Your task to perform on an android device: check out phone information Image 0: 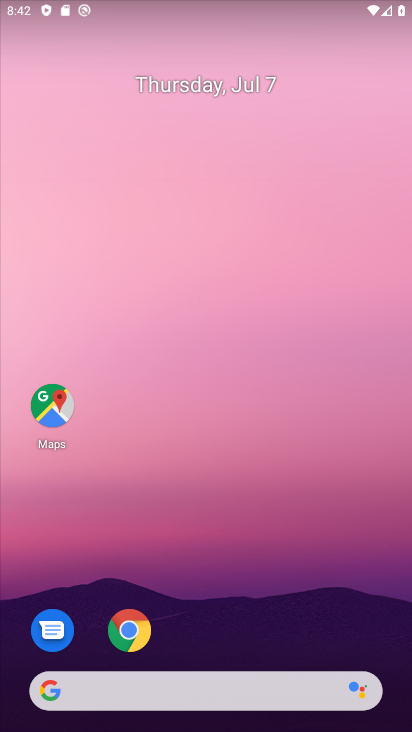
Step 0: drag from (189, 637) to (184, 142)
Your task to perform on an android device: check out phone information Image 1: 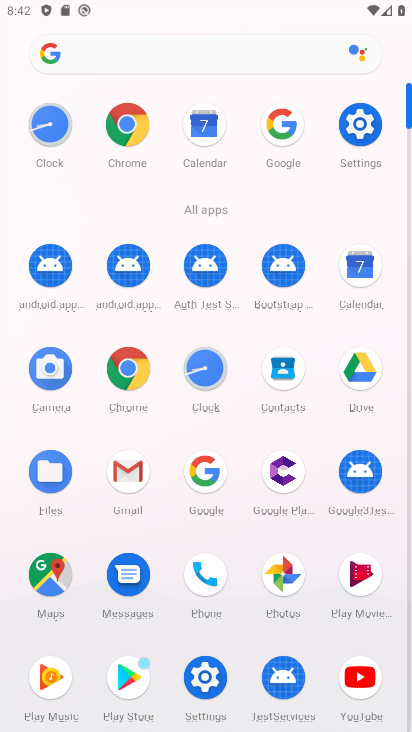
Step 1: click (374, 131)
Your task to perform on an android device: check out phone information Image 2: 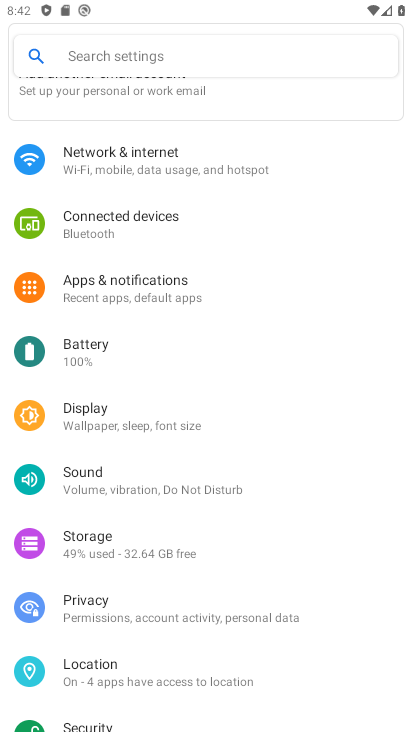
Step 2: drag from (172, 665) to (219, 238)
Your task to perform on an android device: check out phone information Image 3: 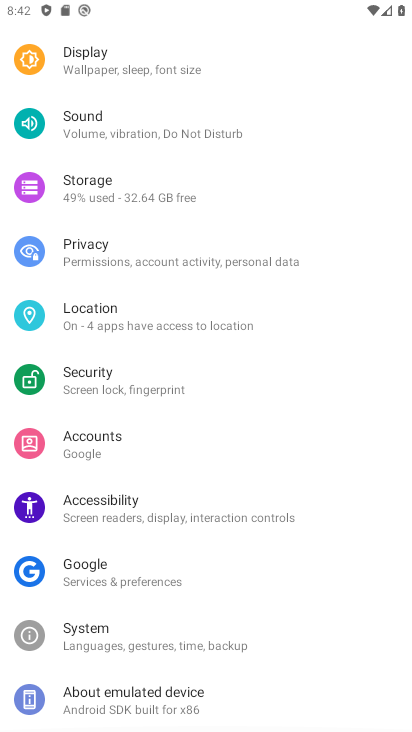
Step 3: drag from (201, 638) to (206, 203)
Your task to perform on an android device: check out phone information Image 4: 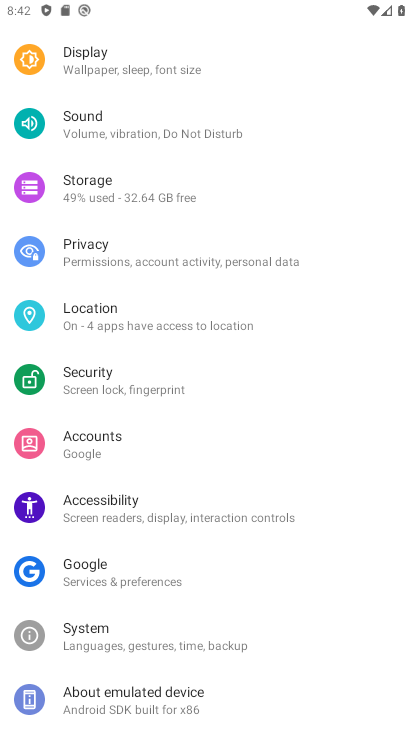
Step 4: click (119, 683)
Your task to perform on an android device: check out phone information Image 5: 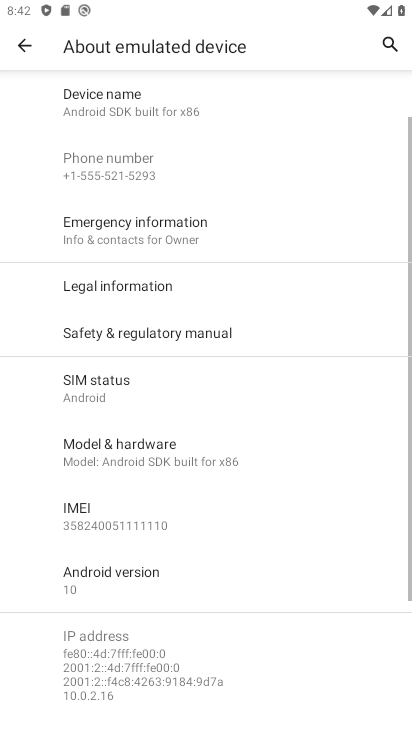
Step 5: task complete